Your task to perform on an android device: turn pop-ups off in chrome Image 0: 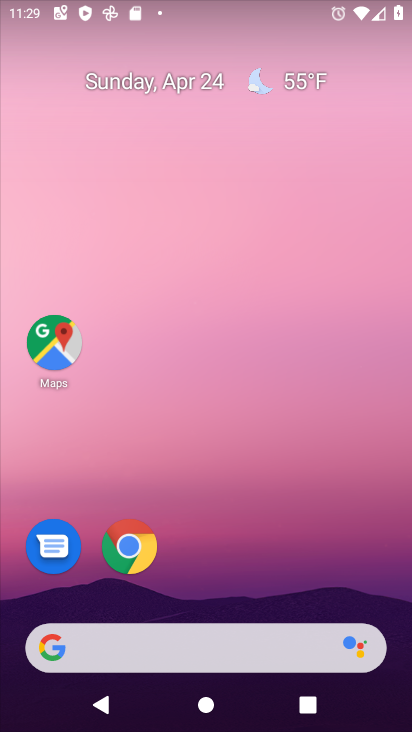
Step 0: click (128, 544)
Your task to perform on an android device: turn pop-ups off in chrome Image 1: 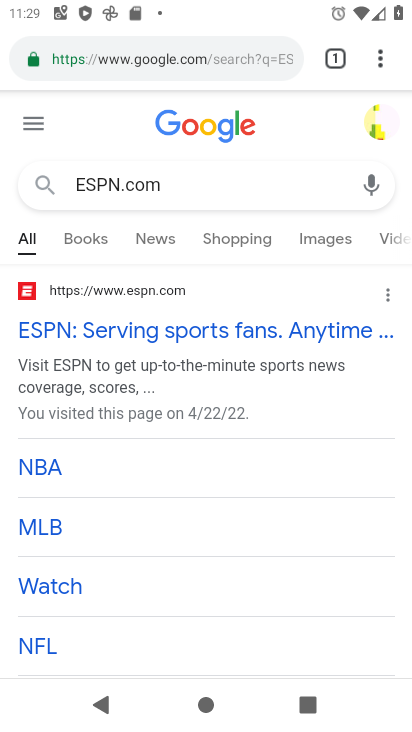
Step 1: click (380, 55)
Your task to perform on an android device: turn pop-ups off in chrome Image 2: 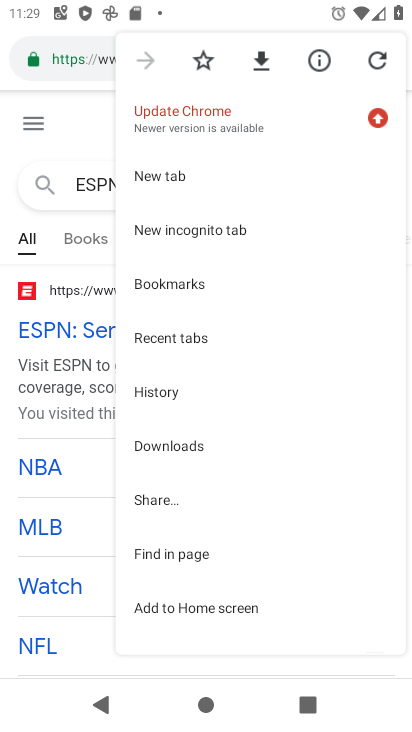
Step 2: drag from (227, 465) to (248, 371)
Your task to perform on an android device: turn pop-ups off in chrome Image 3: 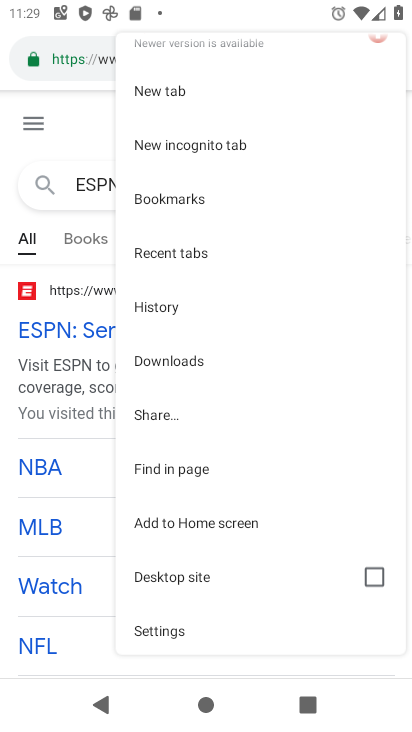
Step 3: drag from (264, 463) to (297, 400)
Your task to perform on an android device: turn pop-ups off in chrome Image 4: 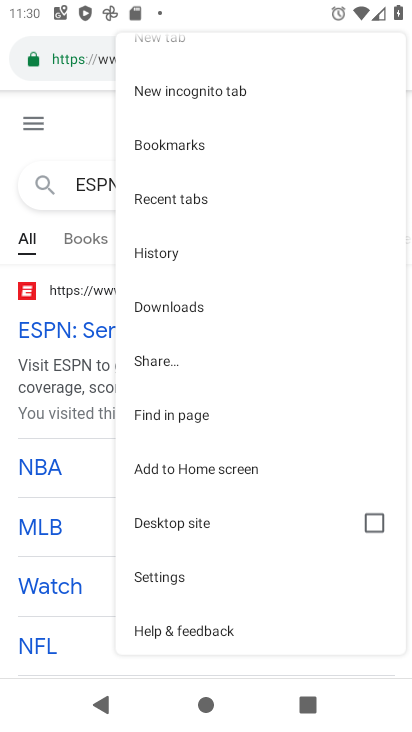
Step 4: click (173, 579)
Your task to perform on an android device: turn pop-ups off in chrome Image 5: 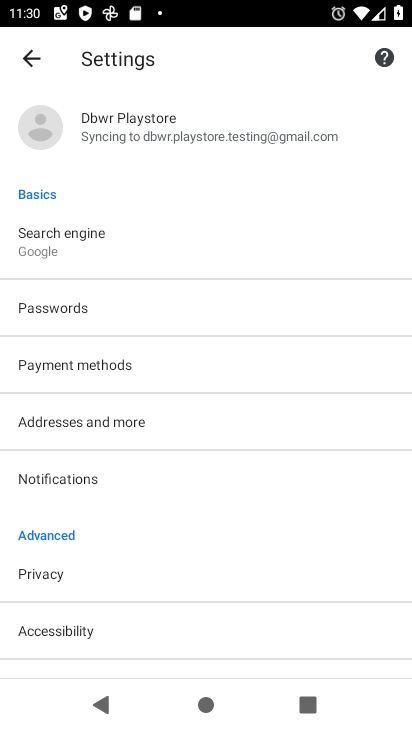
Step 5: drag from (115, 570) to (122, 462)
Your task to perform on an android device: turn pop-ups off in chrome Image 6: 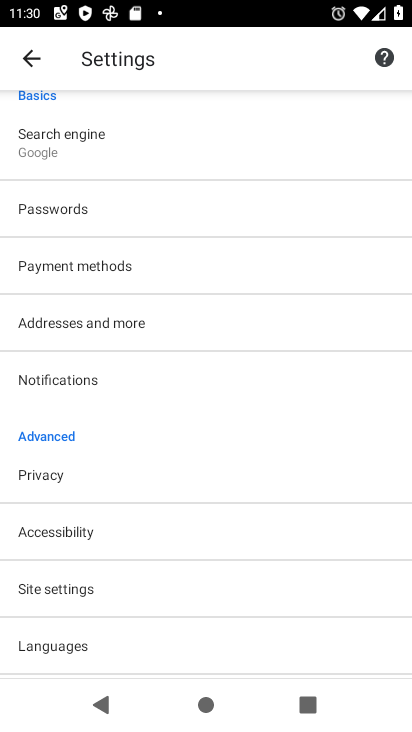
Step 6: drag from (119, 562) to (137, 503)
Your task to perform on an android device: turn pop-ups off in chrome Image 7: 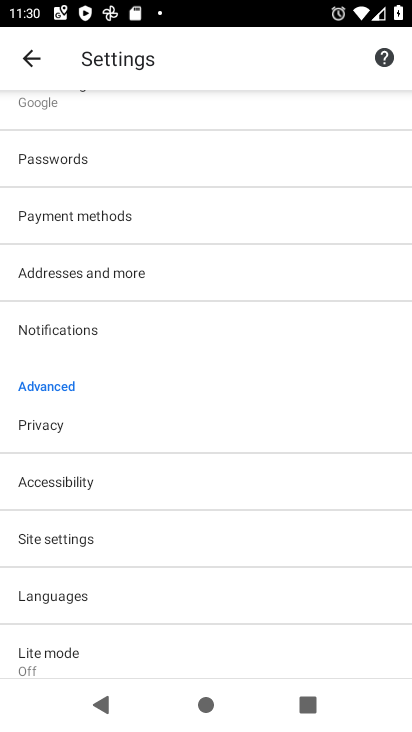
Step 7: click (72, 545)
Your task to perform on an android device: turn pop-ups off in chrome Image 8: 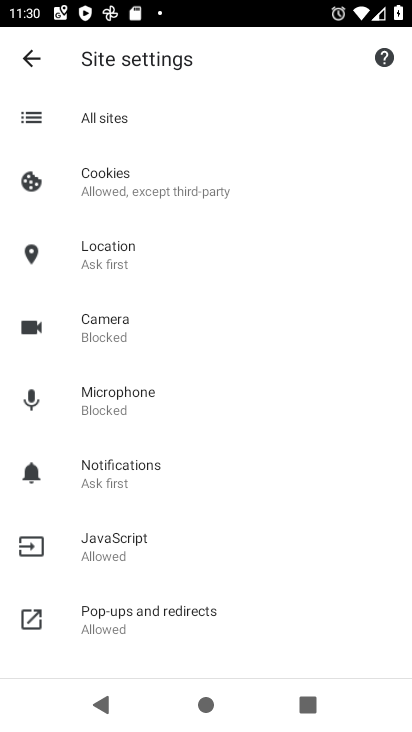
Step 8: drag from (163, 506) to (183, 450)
Your task to perform on an android device: turn pop-ups off in chrome Image 9: 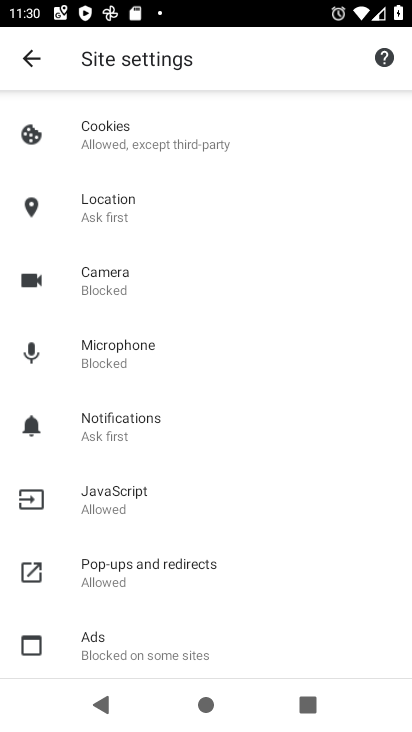
Step 9: click (131, 568)
Your task to perform on an android device: turn pop-ups off in chrome Image 10: 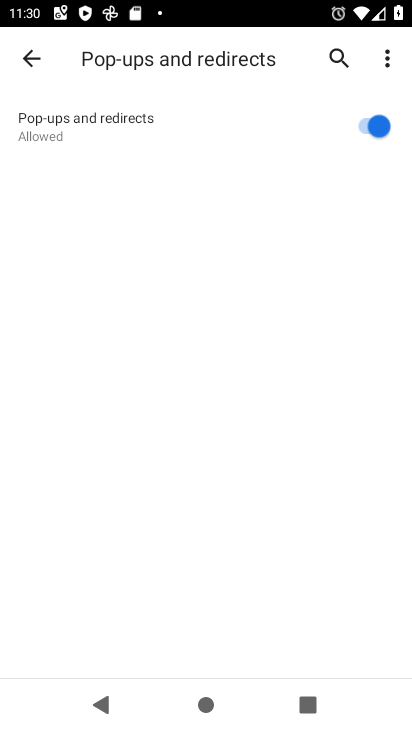
Step 10: click (363, 123)
Your task to perform on an android device: turn pop-ups off in chrome Image 11: 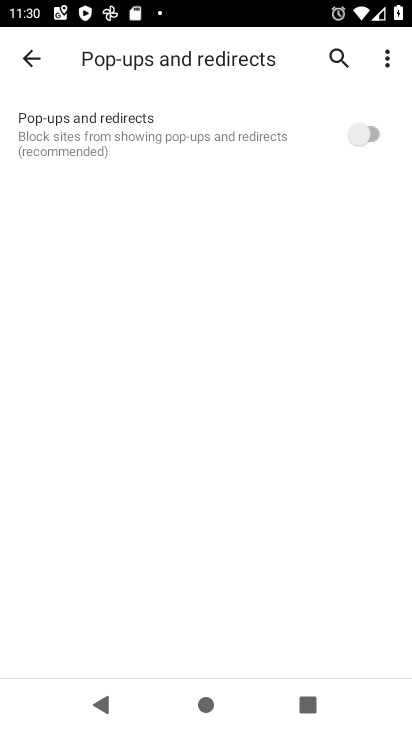
Step 11: task complete